Your task to perform on an android device: uninstall "Microsoft Excel" Image 0: 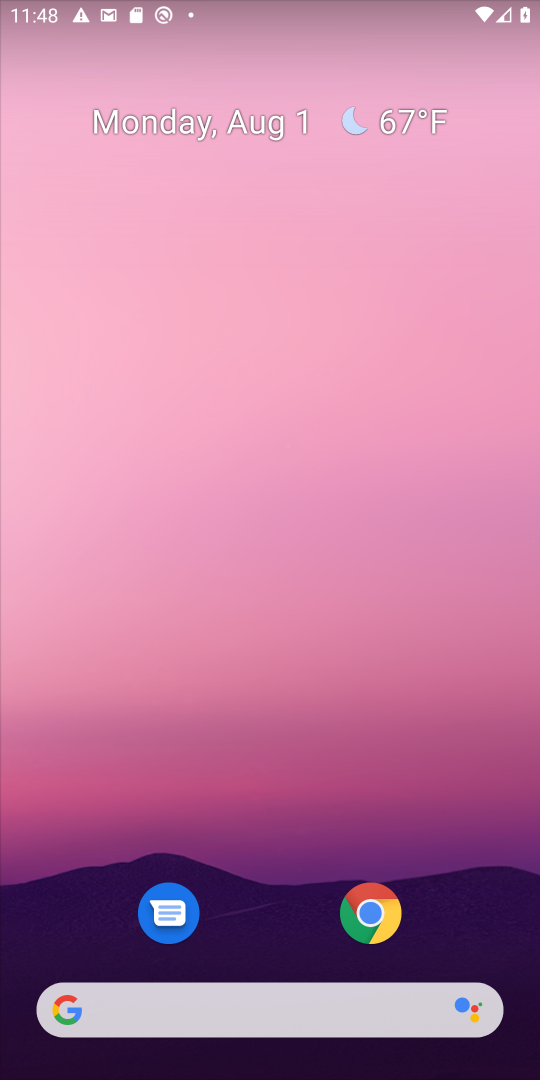
Step 0: drag from (502, 921) to (409, 81)
Your task to perform on an android device: uninstall "Microsoft Excel" Image 1: 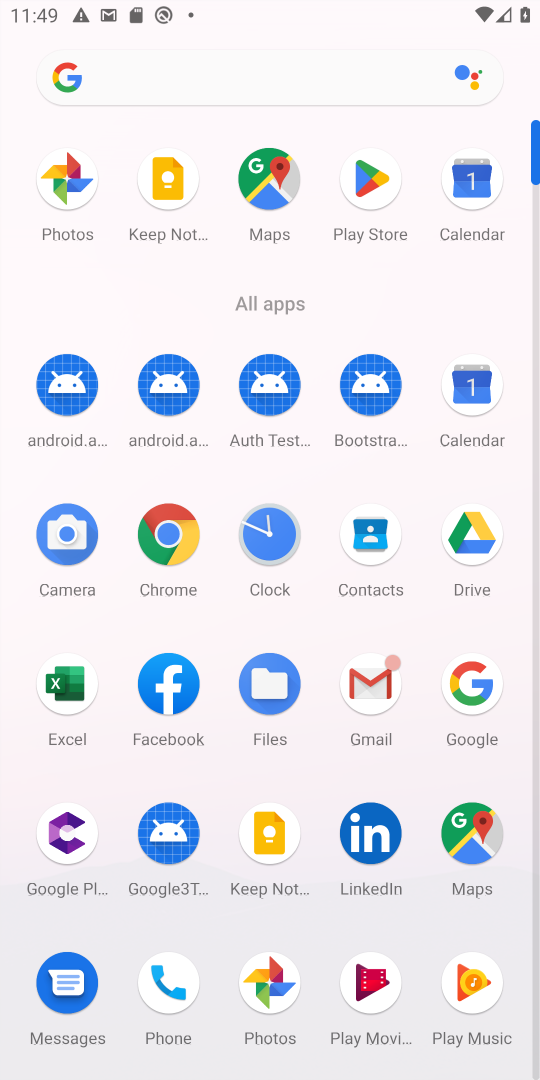
Step 1: click (371, 172)
Your task to perform on an android device: uninstall "Microsoft Excel" Image 2: 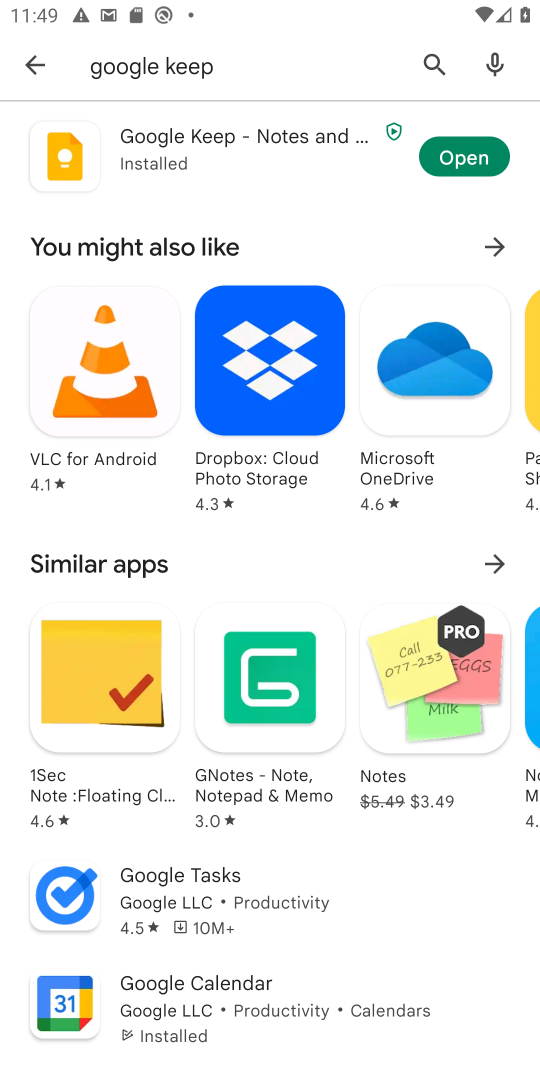
Step 2: click (436, 56)
Your task to perform on an android device: uninstall "Microsoft Excel" Image 3: 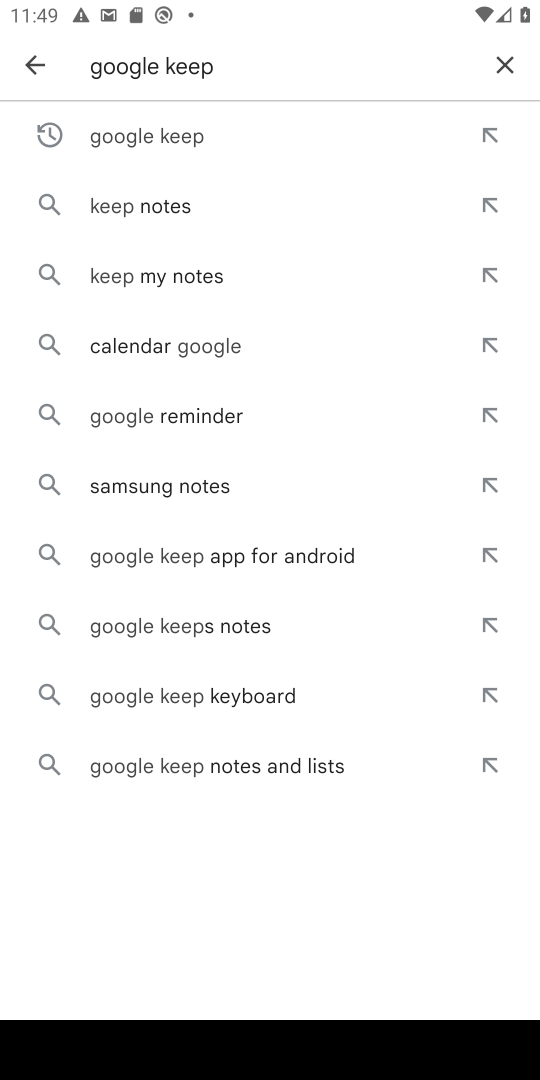
Step 3: click (485, 62)
Your task to perform on an android device: uninstall "Microsoft Excel" Image 4: 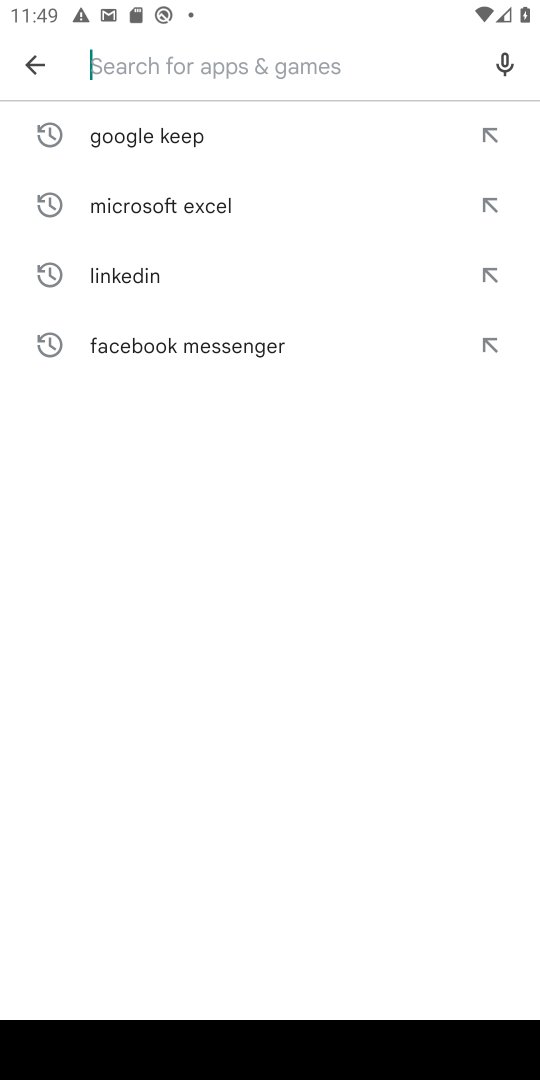
Step 4: type "Microsoft Excel"
Your task to perform on an android device: uninstall "Microsoft Excel" Image 5: 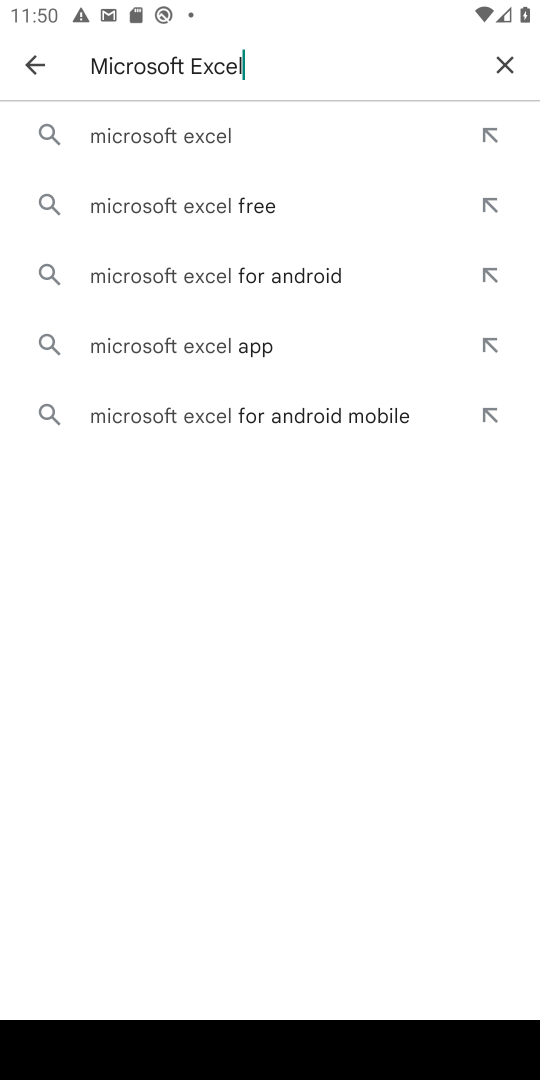
Step 5: click (204, 130)
Your task to perform on an android device: uninstall "Microsoft Excel" Image 6: 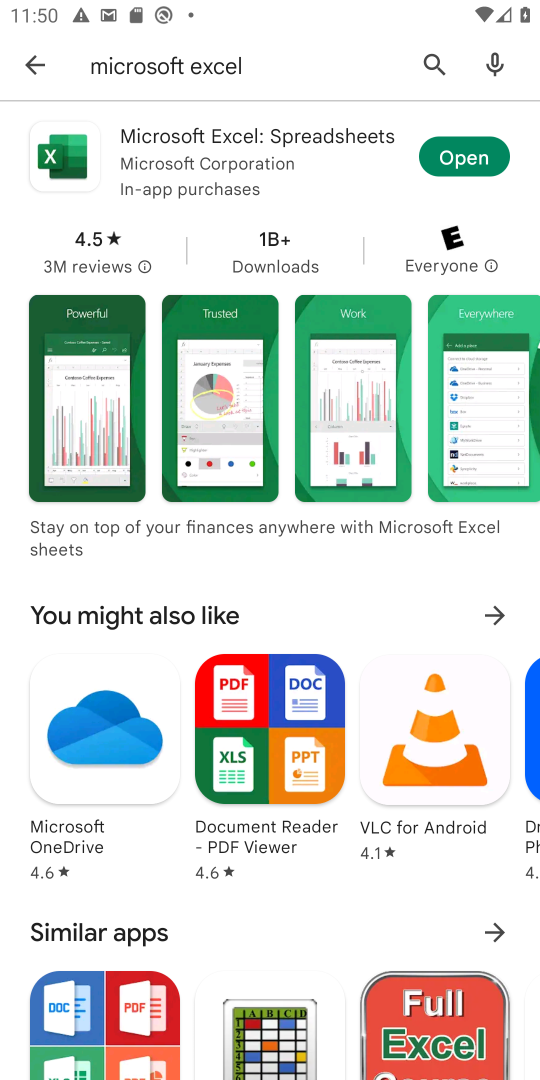
Step 6: press home button
Your task to perform on an android device: uninstall "Microsoft Excel" Image 7: 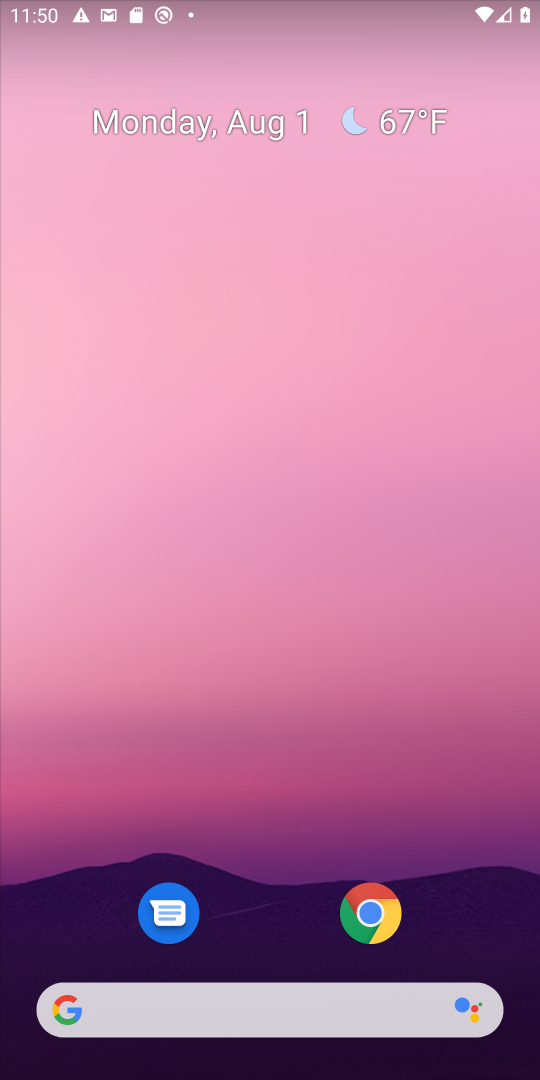
Step 7: drag from (501, 970) to (424, 116)
Your task to perform on an android device: uninstall "Microsoft Excel" Image 8: 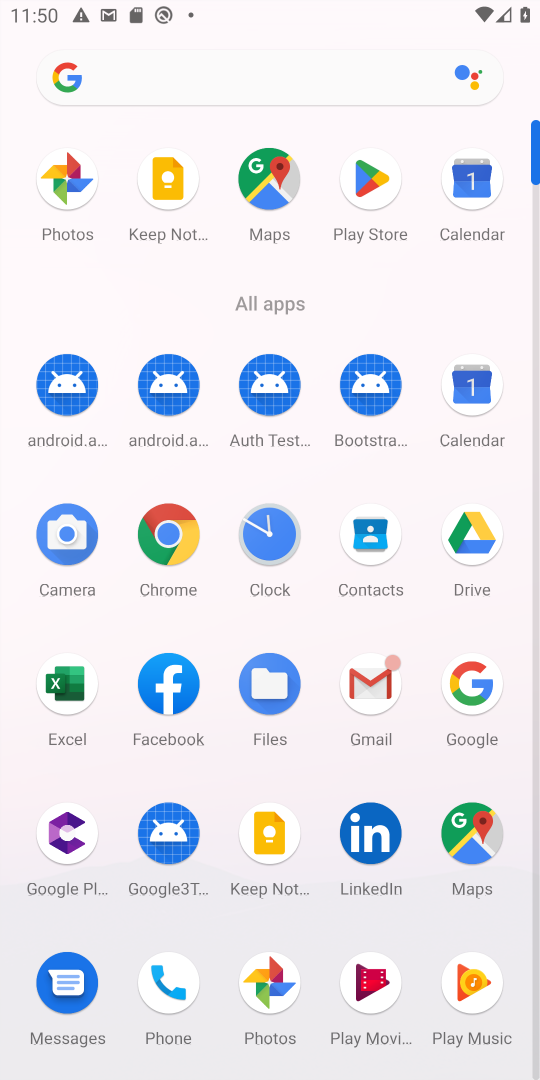
Step 8: drag from (74, 694) to (352, 60)
Your task to perform on an android device: uninstall "Microsoft Excel" Image 9: 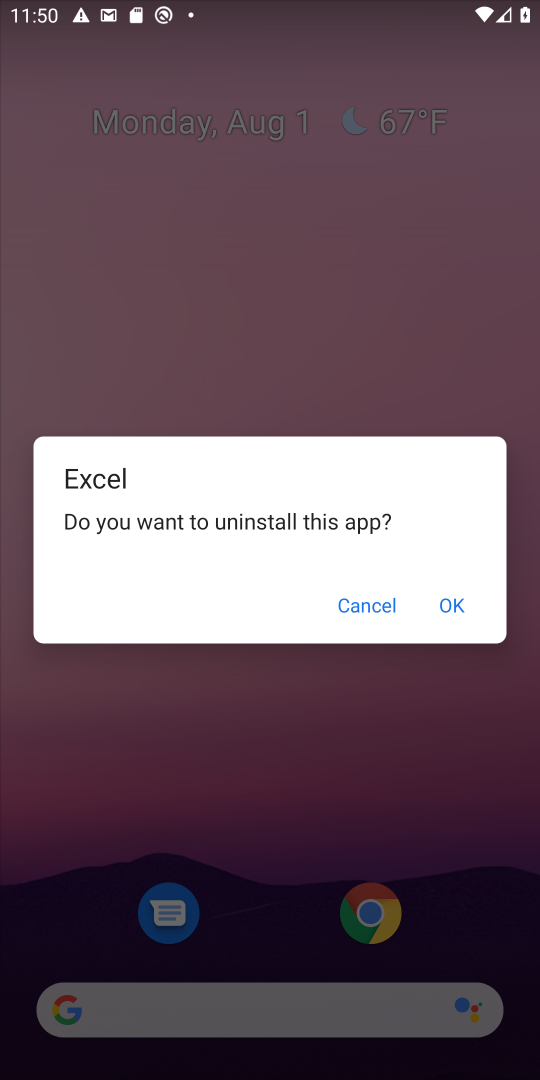
Step 9: click (469, 606)
Your task to perform on an android device: uninstall "Microsoft Excel" Image 10: 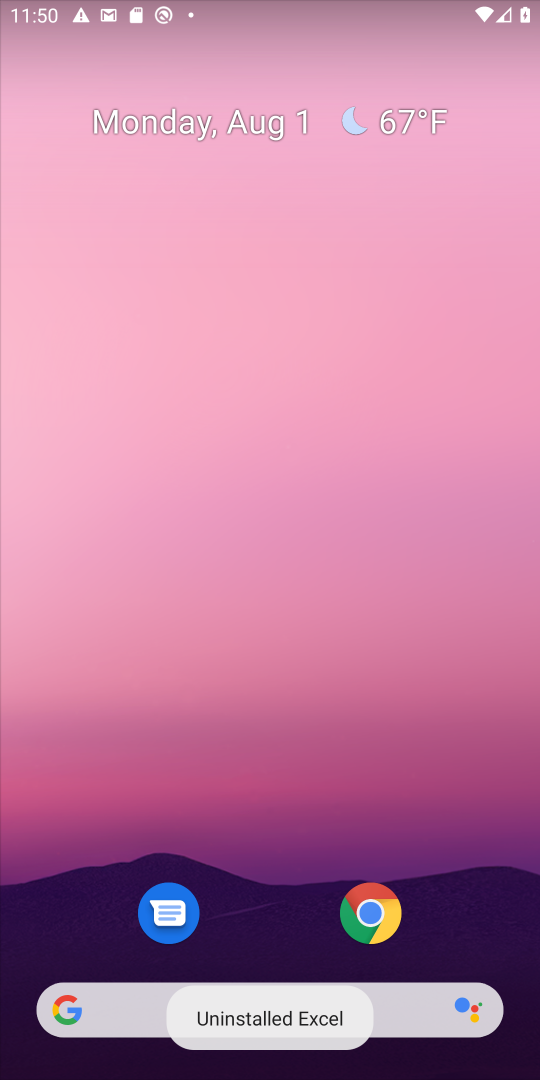
Step 10: task complete